Your task to perform on an android device: toggle location history Image 0: 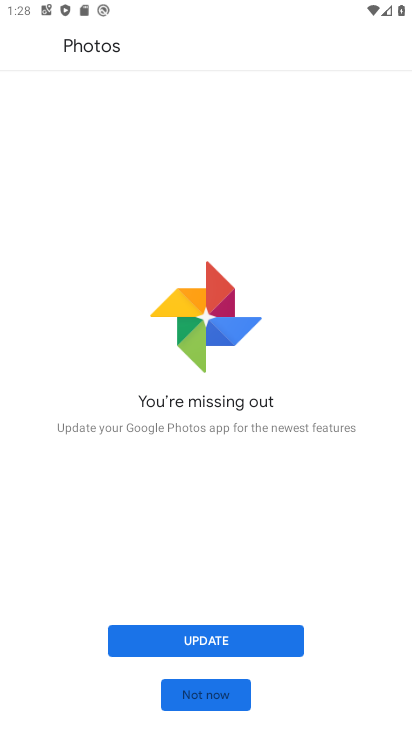
Step 0: press home button
Your task to perform on an android device: toggle location history Image 1: 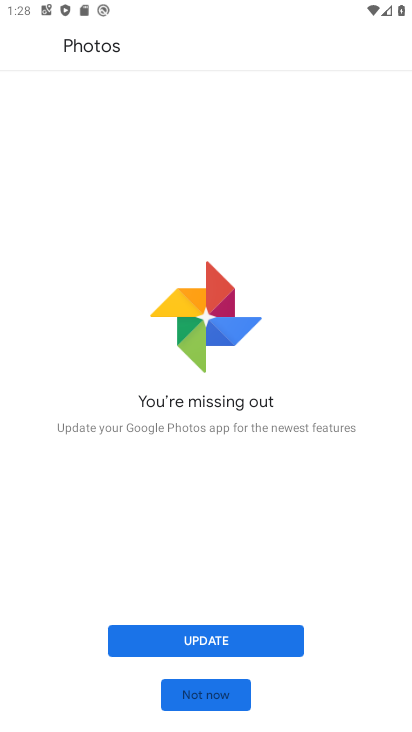
Step 1: press home button
Your task to perform on an android device: toggle location history Image 2: 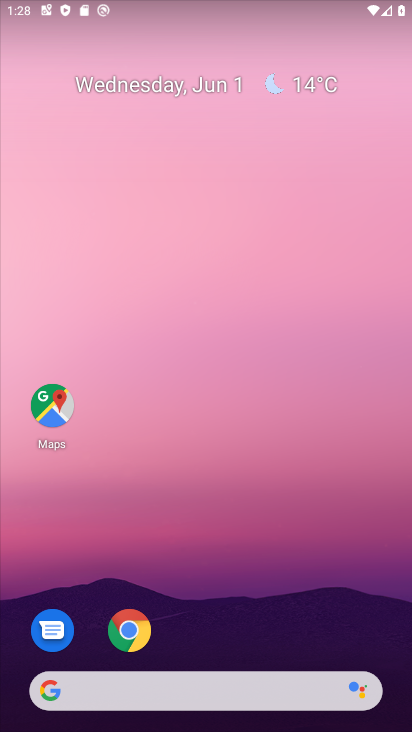
Step 2: drag from (212, 648) to (262, 64)
Your task to perform on an android device: toggle location history Image 3: 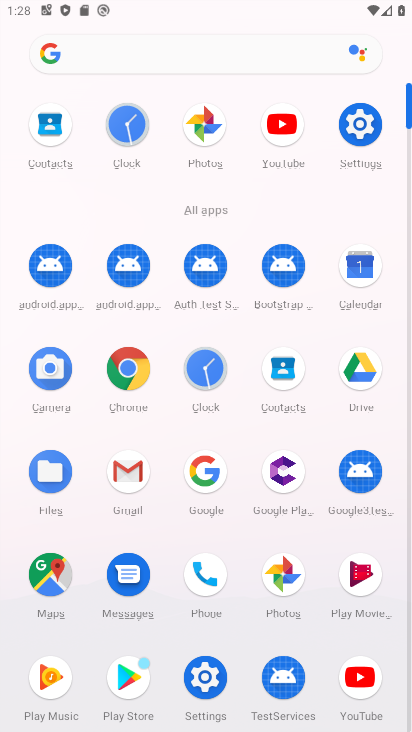
Step 3: click (357, 120)
Your task to perform on an android device: toggle location history Image 4: 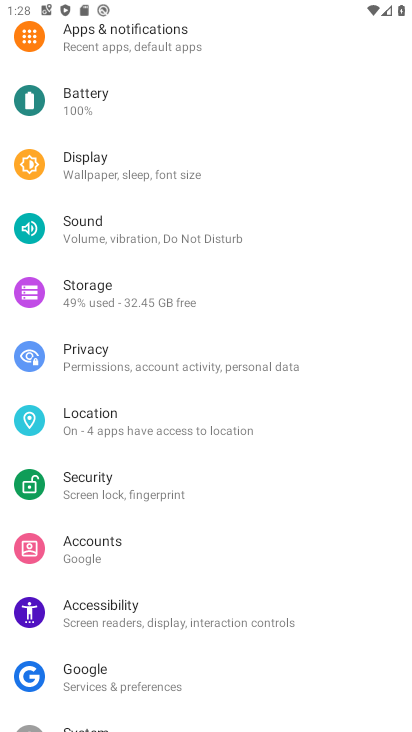
Step 4: click (137, 414)
Your task to perform on an android device: toggle location history Image 5: 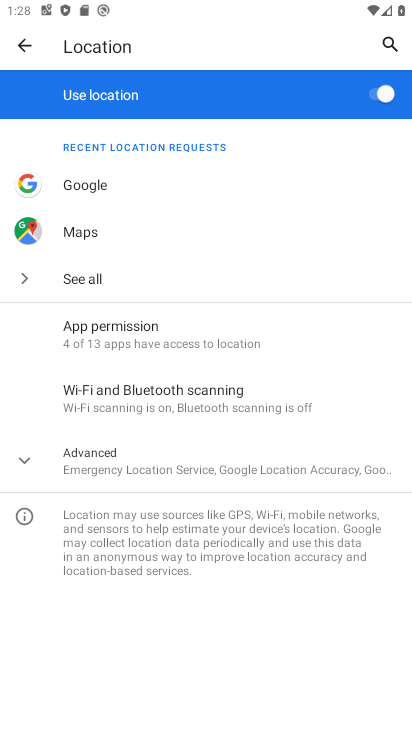
Step 5: click (79, 456)
Your task to perform on an android device: toggle location history Image 6: 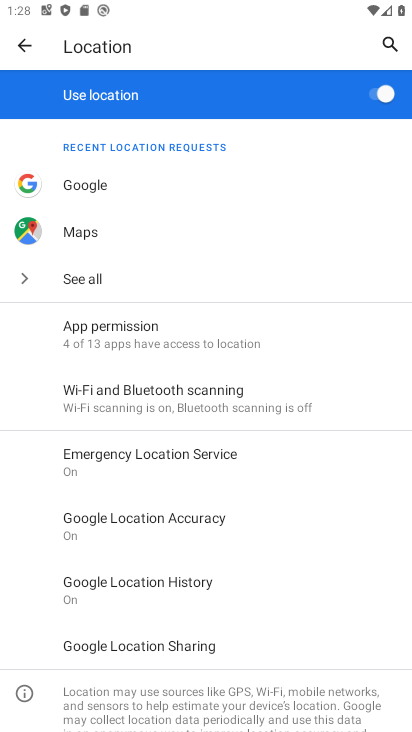
Step 6: click (123, 592)
Your task to perform on an android device: toggle location history Image 7: 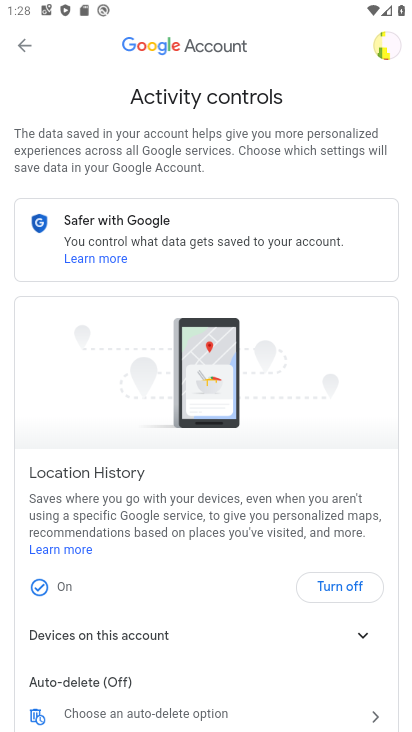
Step 7: click (344, 584)
Your task to perform on an android device: toggle location history Image 8: 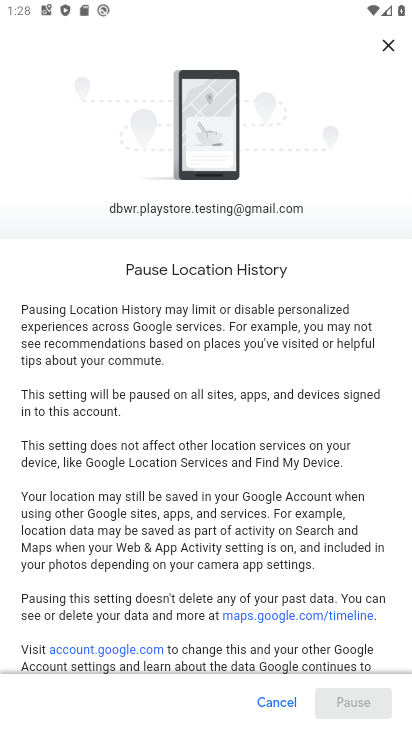
Step 8: drag from (260, 618) to (289, 246)
Your task to perform on an android device: toggle location history Image 9: 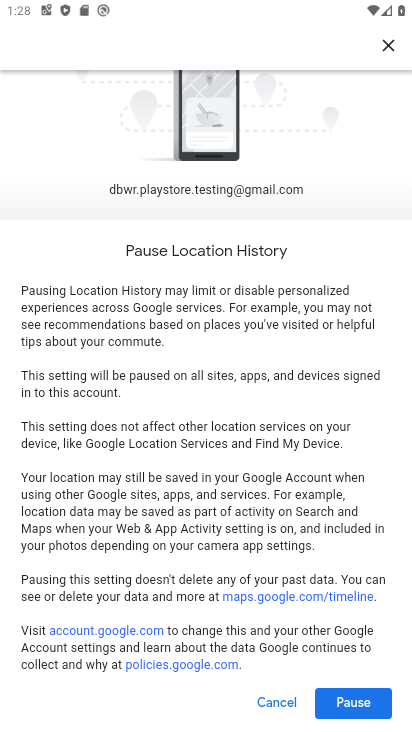
Step 9: click (355, 702)
Your task to perform on an android device: toggle location history Image 10: 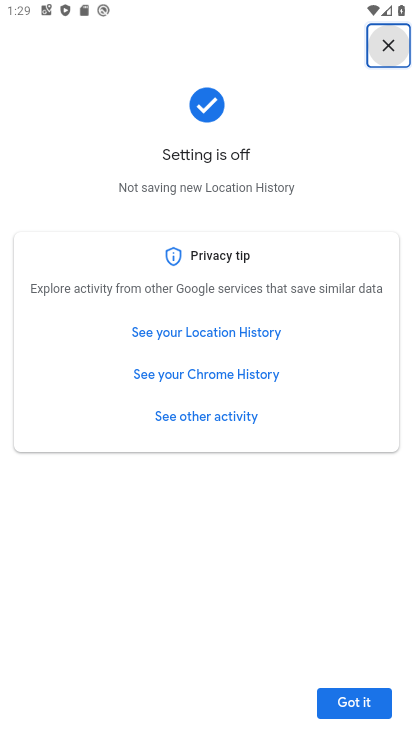
Step 10: click (348, 698)
Your task to perform on an android device: toggle location history Image 11: 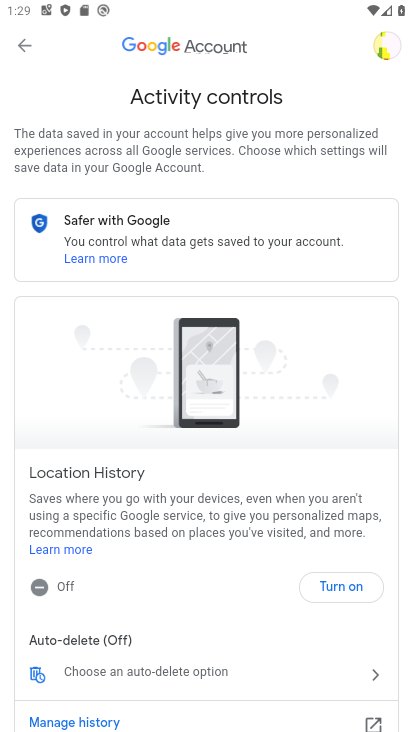
Step 11: task complete